Your task to perform on an android device: turn on translation in the chrome app Image 0: 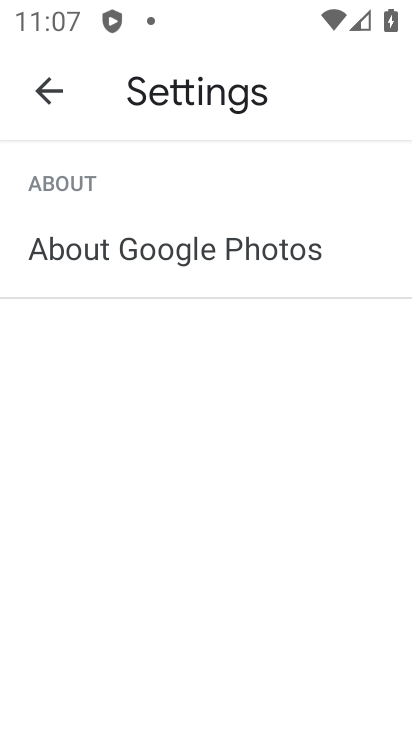
Step 0: press home button
Your task to perform on an android device: turn on translation in the chrome app Image 1: 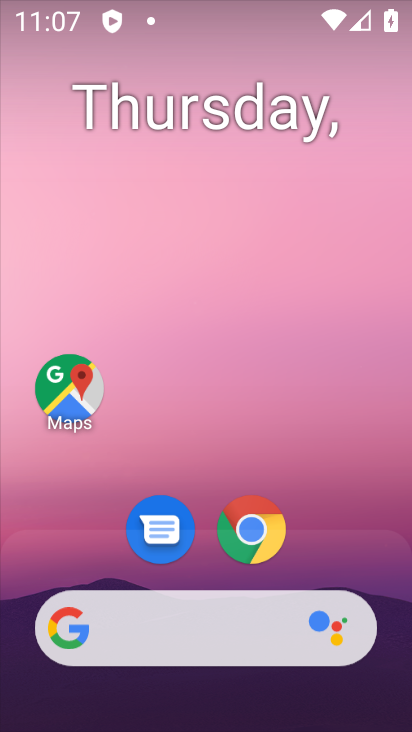
Step 1: drag from (198, 577) to (211, 208)
Your task to perform on an android device: turn on translation in the chrome app Image 2: 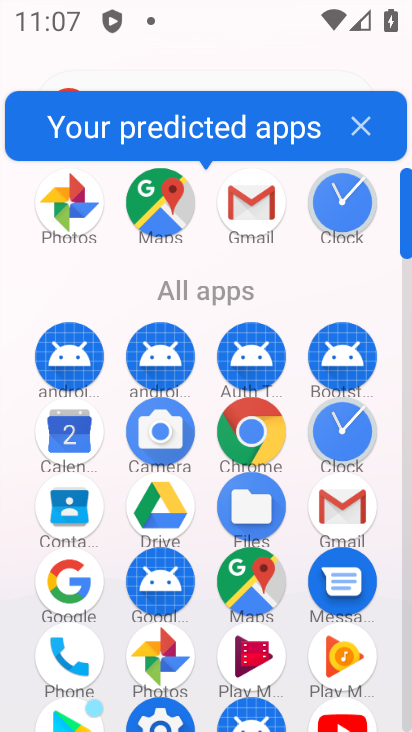
Step 2: click (265, 434)
Your task to perform on an android device: turn on translation in the chrome app Image 3: 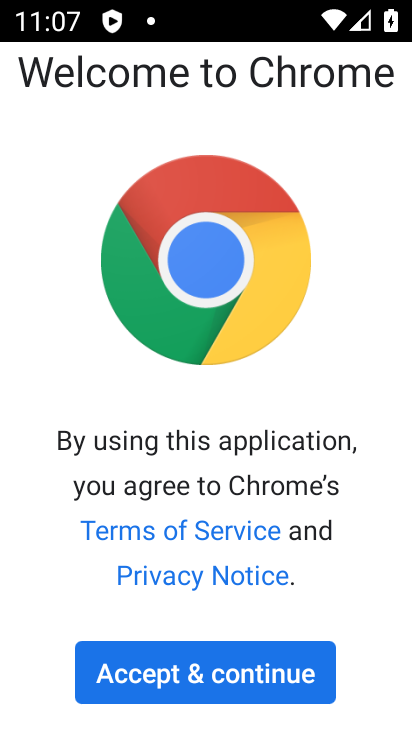
Step 3: click (226, 677)
Your task to perform on an android device: turn on translation in the chrome app Image 4: 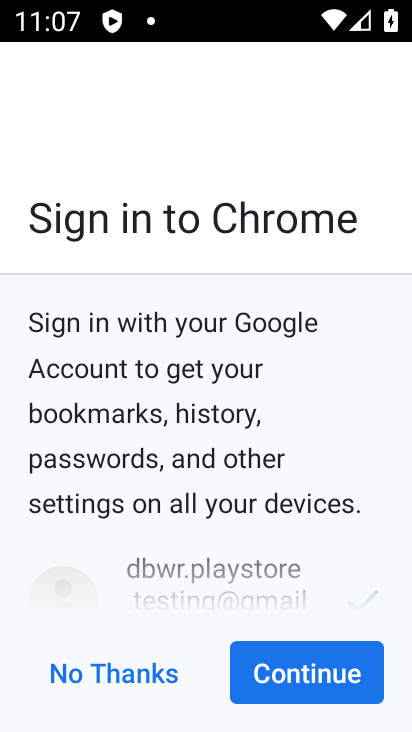
Step 4: click (226, 677)
Your task to perform on an android device: turn on translation in the chrome app Image 5: 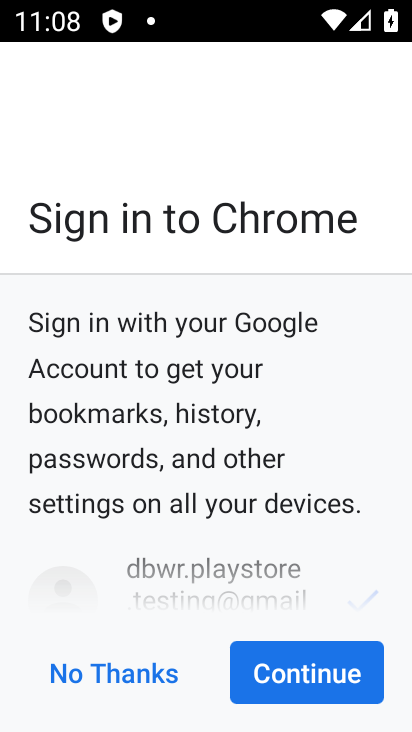
Step 5: click (242, 676)
Your task to perform on an android device: turn on translation in the chrome app Image 6: 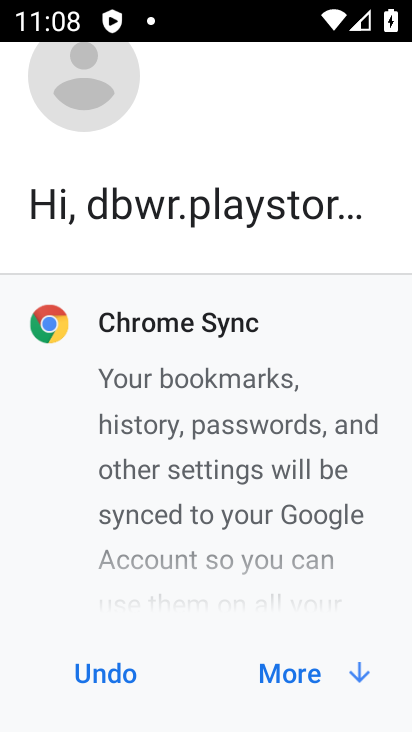
Step 6: click (316, 672)
Your task to perform on an android device: turn on translation in the chrome app Image 7: 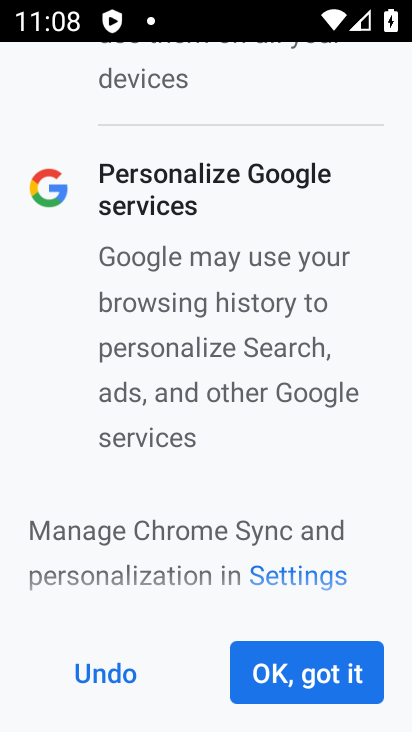
Step 7: click (337, 684)
Your task to perform on an android device: turn on translation in the chrome app Image 8: 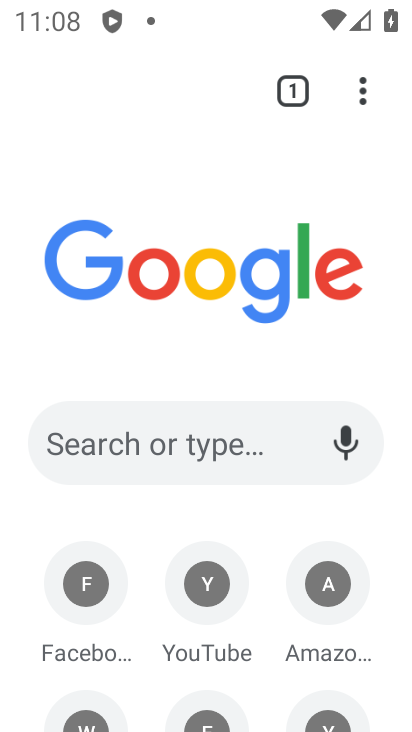
Step 8: click (369, 90)
Your task to perform on an android device: turn on translation in the chrome app Image 9: 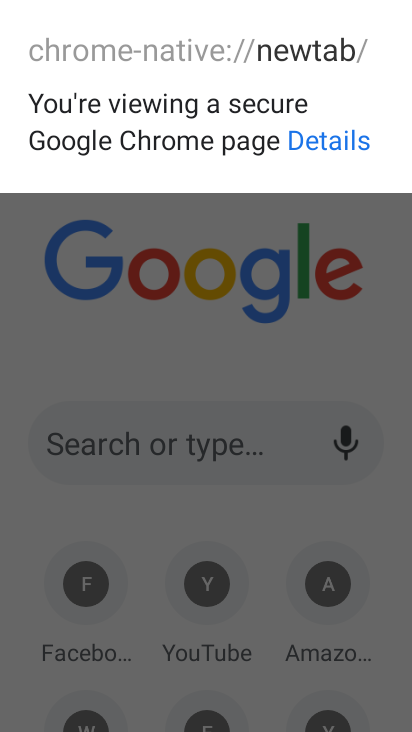
Step 9: click (368, 263)
Your task to perform on an android device: turn on translation in the chrome app Image 10: 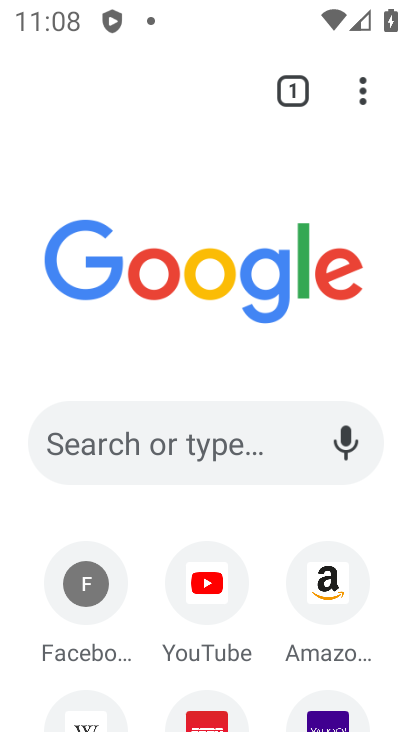
Step 10: click (360, 97)
Your task to perform on an android device: turn on translation in the chrome app Image 11: 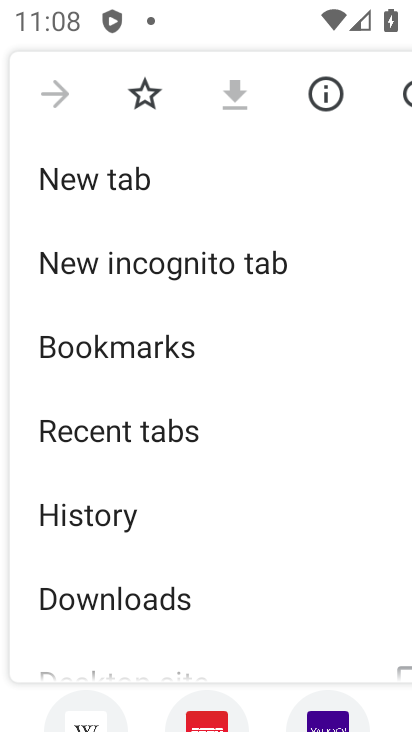
Step 11: drag from (210, 643) to (206, 228)
Your task to perform on an android device: turn on translation in the chrome app Image 12: 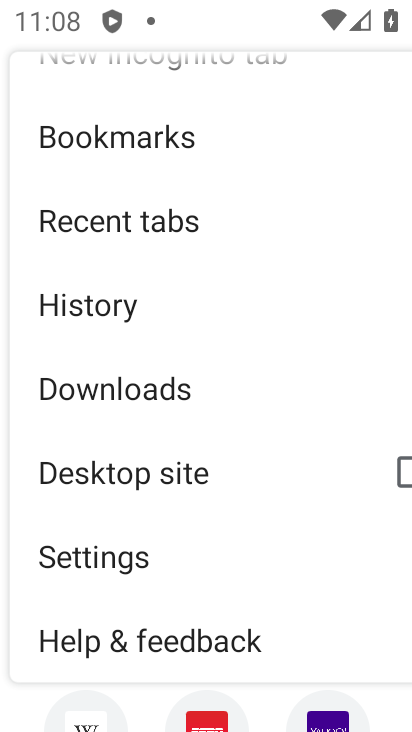
Step 12: click (140, 563)
Your task to perform on an android device: turn on translation in the chrome app Image 13: 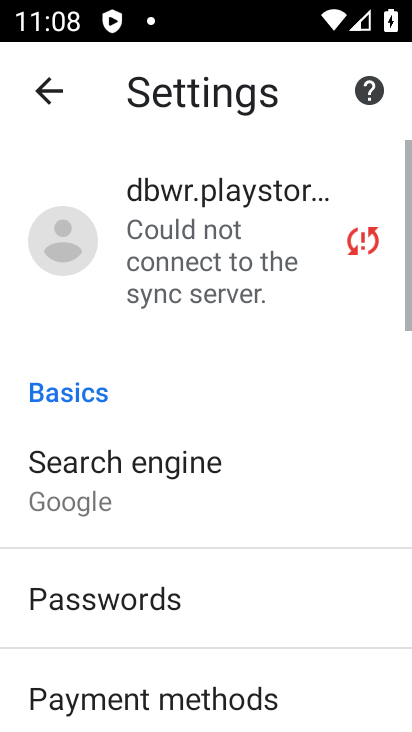
Step 13: drag from (145, 657) to (164, 264)
Your task to perform on an android device: turn on translation in the chrome app Image 14: 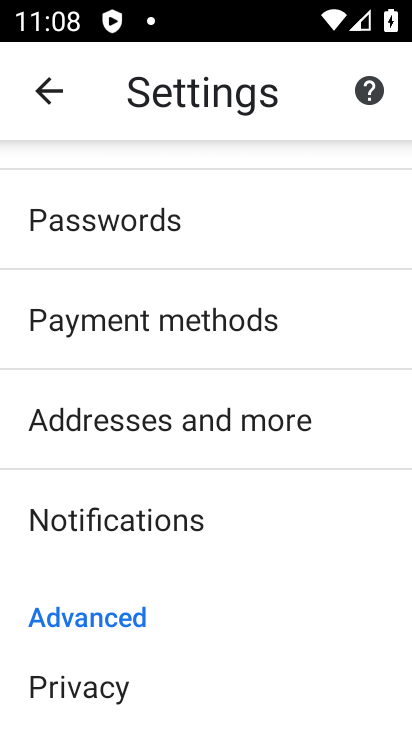
Step 14: drag from (126, 711) to (140, 395)
Your task to perform on an android device: turn on translation in the chrome app Image 15: 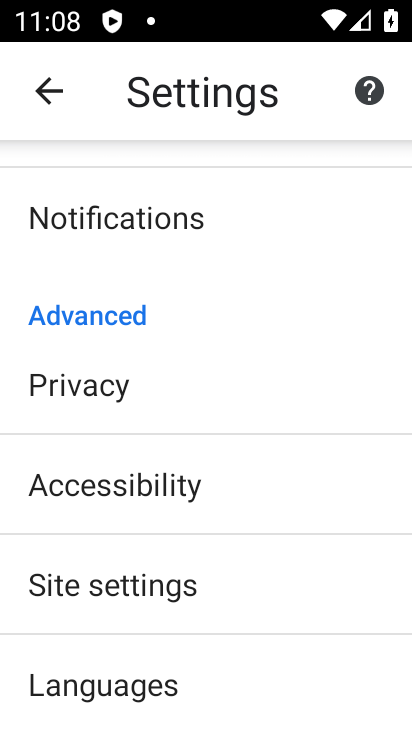
Step 15: drag from (96, 715) to (110, 350)
Your task to perform on an android device: turn on translation in the chrome app Image 16: 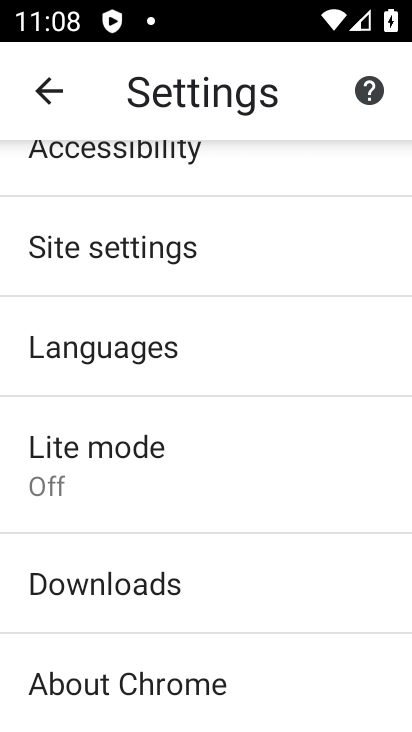
Step 16: click (106, 342)
Your task to perform on an android device: turn on translation in the chrome app Image 17: 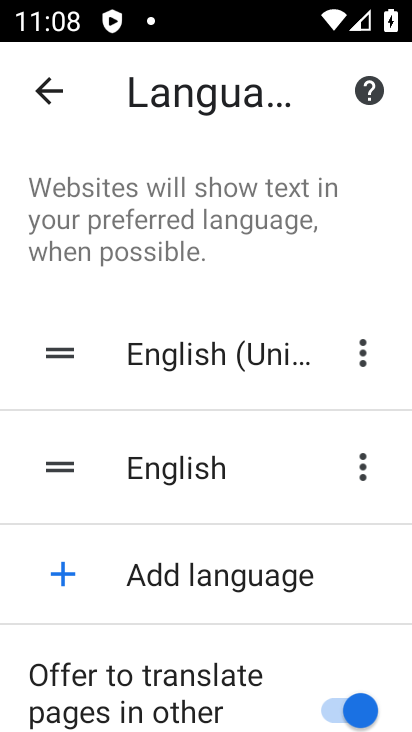
Step 17: task complete